Your task to perform on an android device: Go to Android settings Image 0: 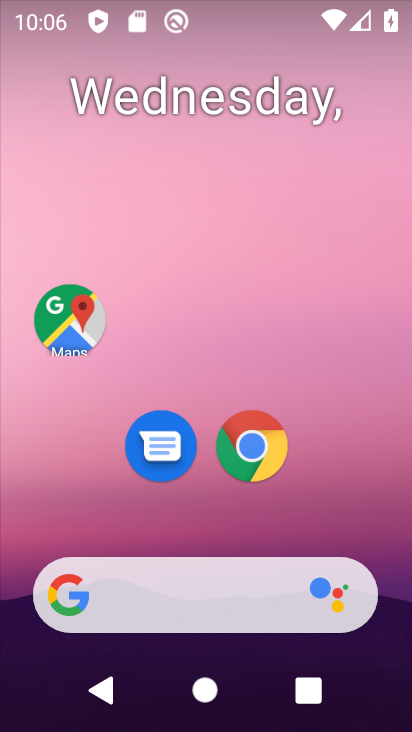
Step 0: drag from (325, 474) to (325, 143)
Your task to perform on an android device: Go to Android settings Image 1: 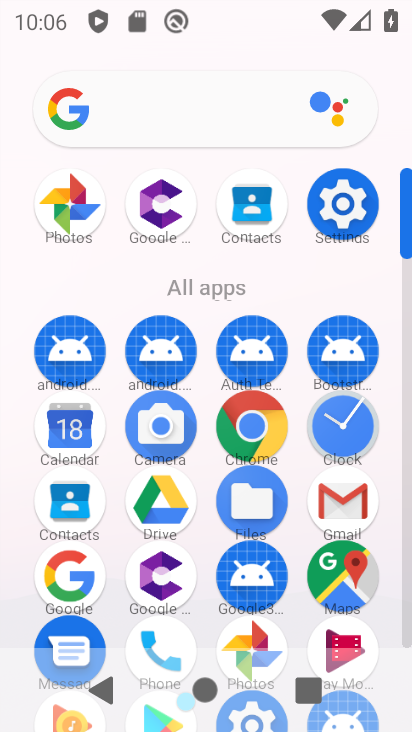
Step 1: click (356, 202)
Your task to perform on an android device: Go to Android settings Image 2: 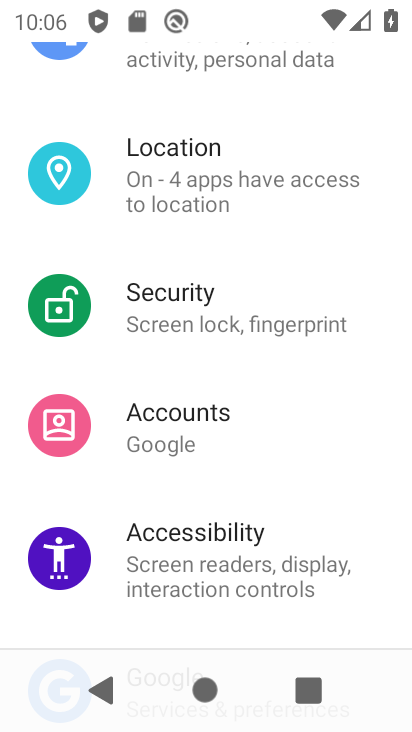
Step 2: drag from (296, 182) to (307, 121)
Your task to perform on an android device: Go to Android settings Image 3: 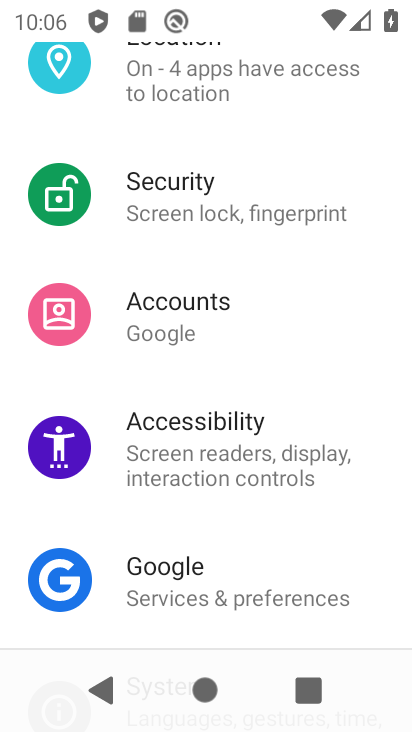
Step 3: drag from (255, 542) to (249, 175)
Your task to perform on an android device: Go to Android settings Image 4: 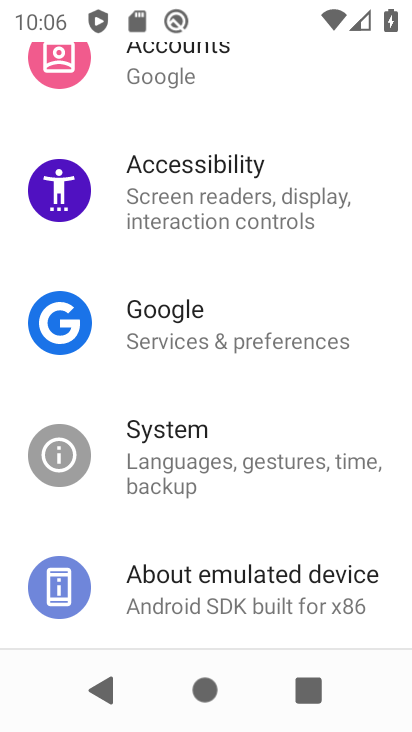
Step 4: click (234, 603)
Your task to perform on an android device: Go to Android settings Image 5: 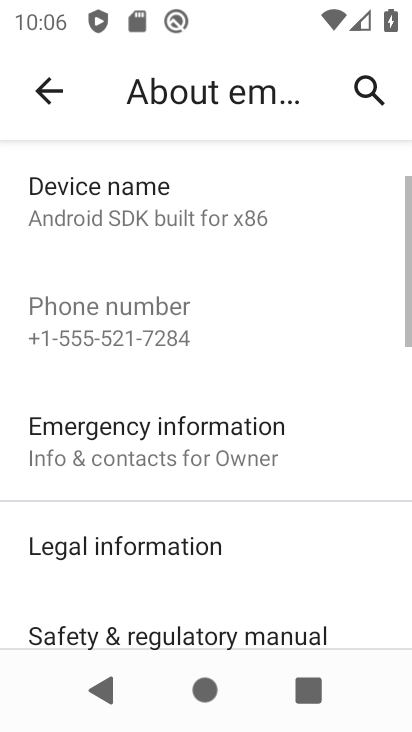
Step 5: drag from (305, 609) to (328, 125)
Your task to perform on an android device: Go to Android settings Image 6: 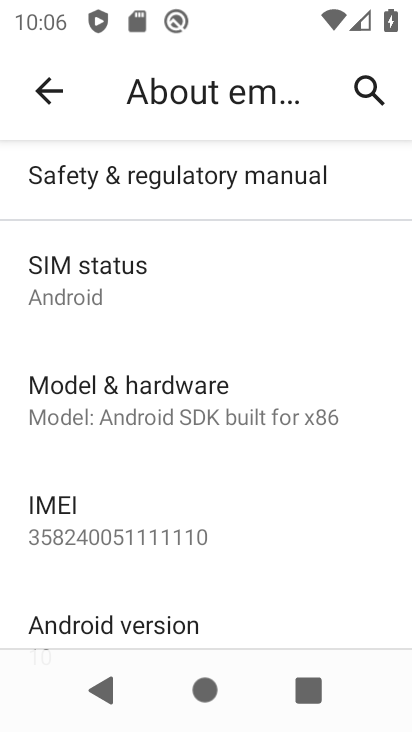
Step 6: drag from (295, 565) to (311, 311)
Your task to perform on an android device: Go to Android settings Image 7: 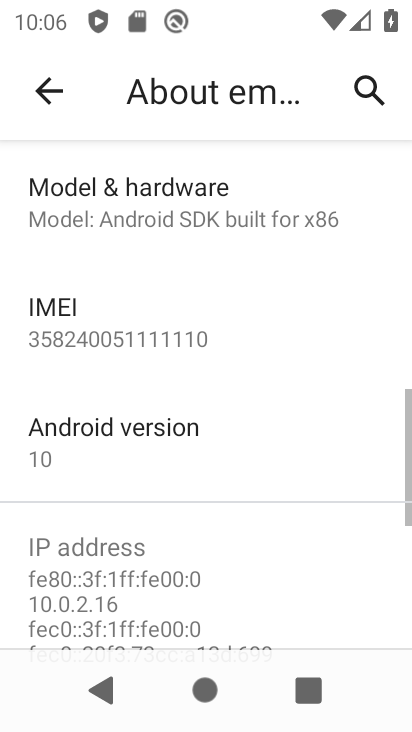
Step 7: click (122, 445)
Your task to perform on an android device: Go to Android settings Image 8: 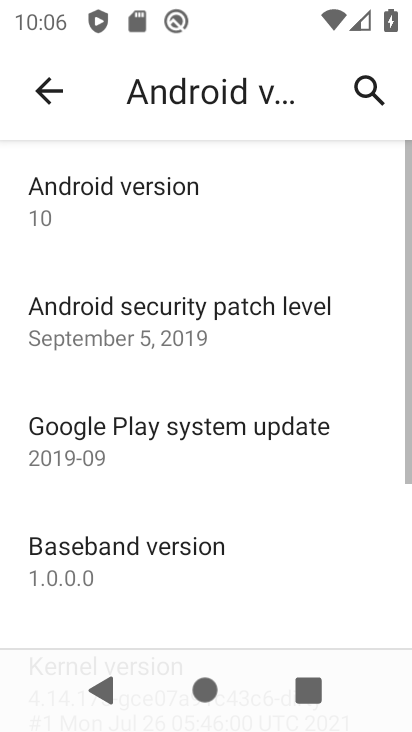
Step 8: task complete